Your task to perform on an android device: Open maps Image 0: 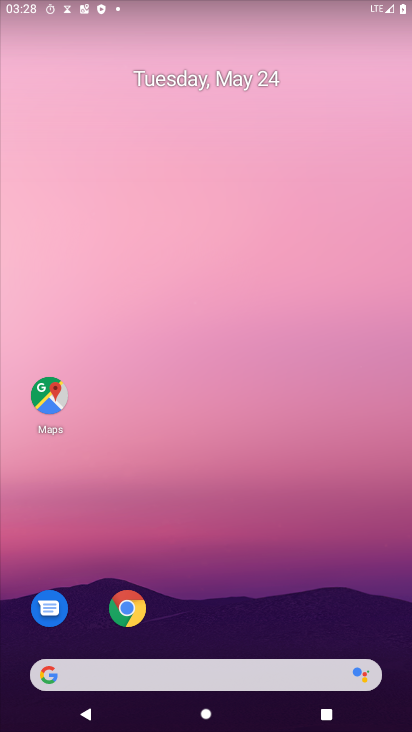
Step 0: click (59, 417)
Your task to perform on an android device: Open maps Image 1: 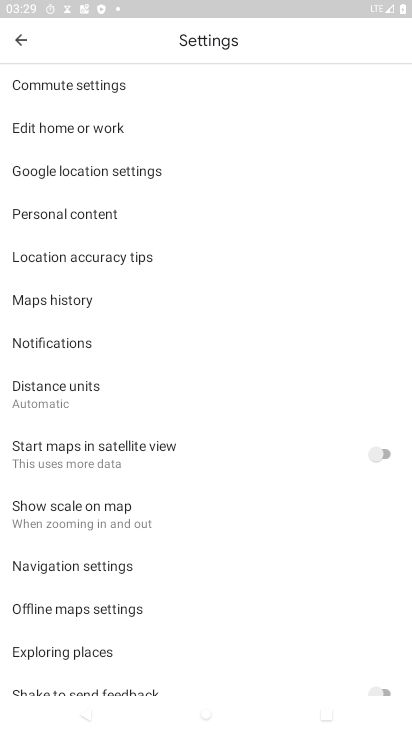
Step 1: task complete